Your task to perform on an android device: Open settings Image 0: 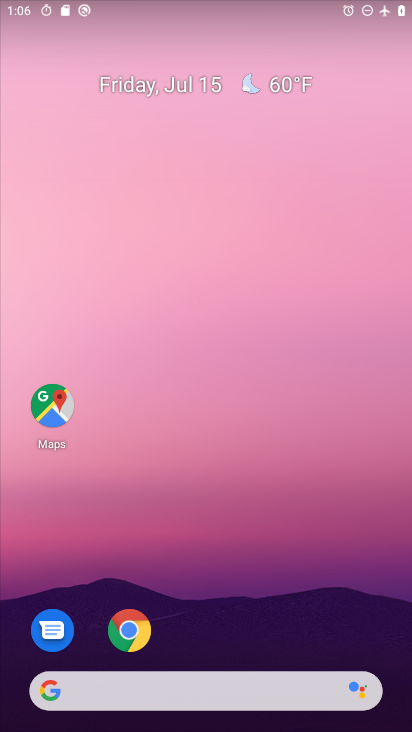
Step 0: drag from (171, 504) to (171, 129)
Your task to perform on an android device: Open settings Image 1: 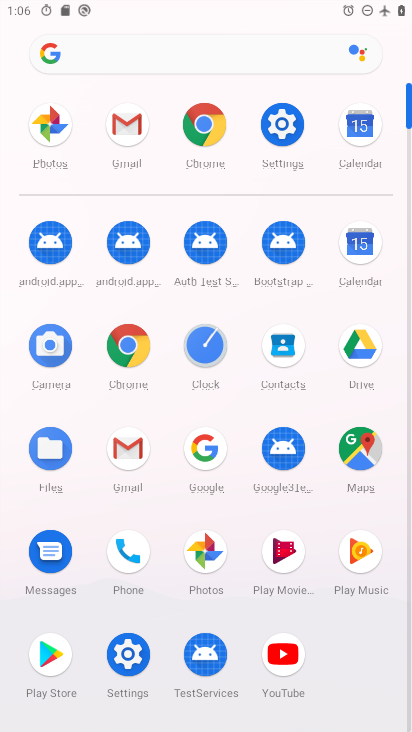
Step 1: click (282, 116)
Your task to perform on an android device: Open settings Image 2: 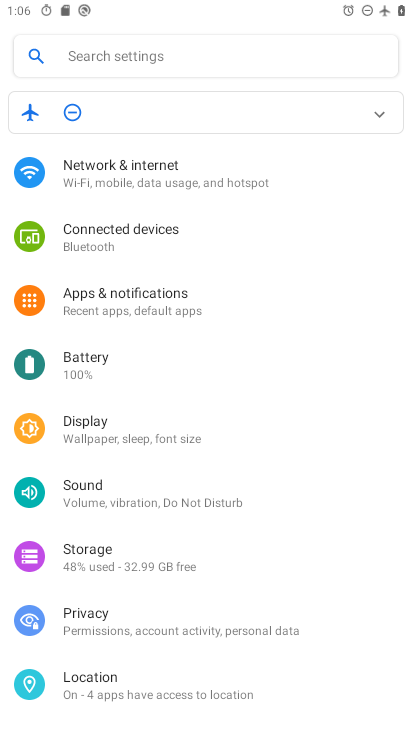
Step 2: task complete